Your task to perform on an android device: Go to eBay Image 0: 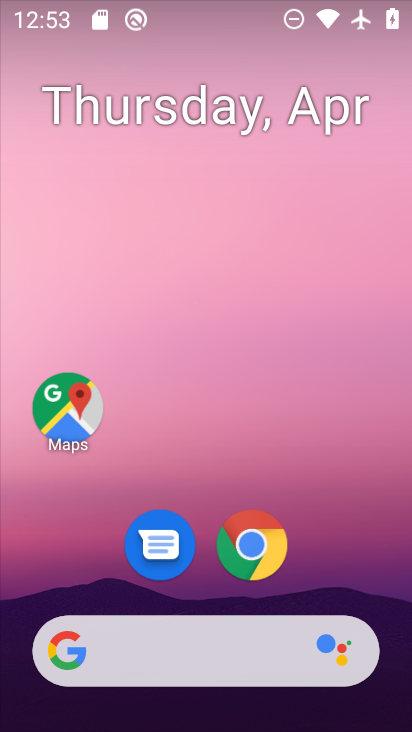
Step 0: click (264, 533)
Your task to perform on an android device: Go to eBay Image 1: 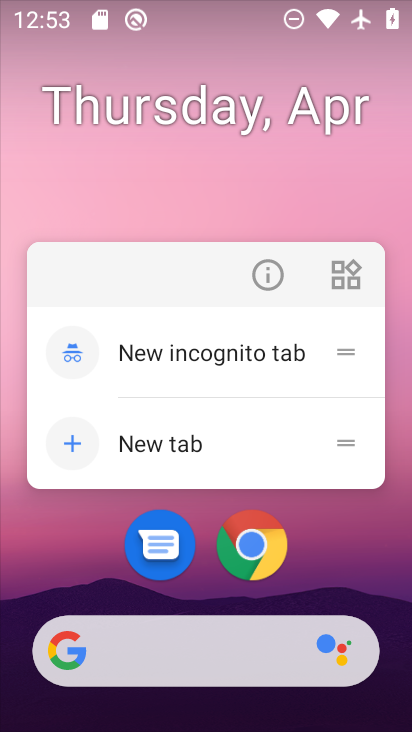
Step 1: click (252, 540)
Your task to perform on an android device: Go to eBay Image 2: 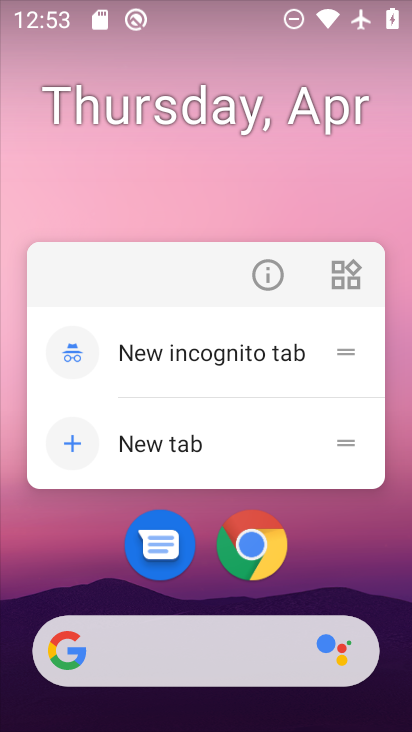
Step 2: click (254, 553)
Your task to perform on an android device: Go to eBay Image 3: 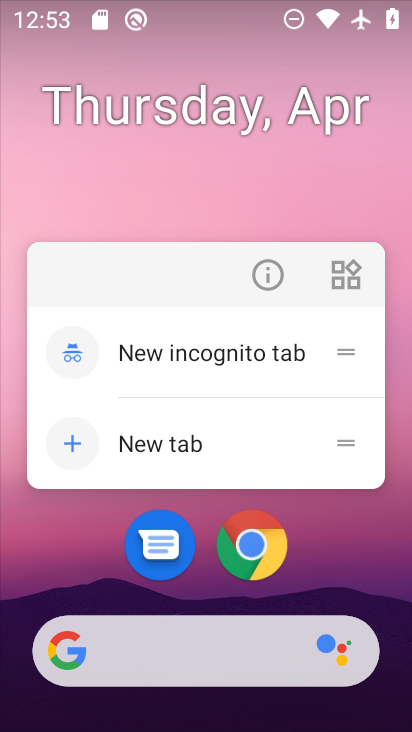
Step 3: drag from (332, 566) to (269, 0)
Your task to perform on an android device: Go to eBay Image 4: 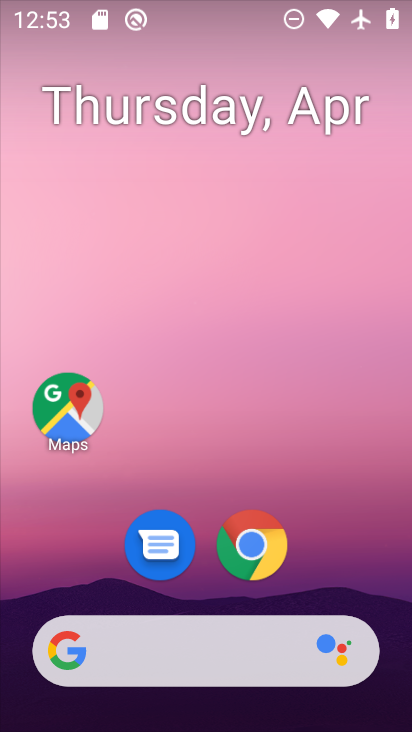
Step 4: drag from (359, 549) to (284, 176)
Your task to perform on an android device: Go to eBay Image 5: 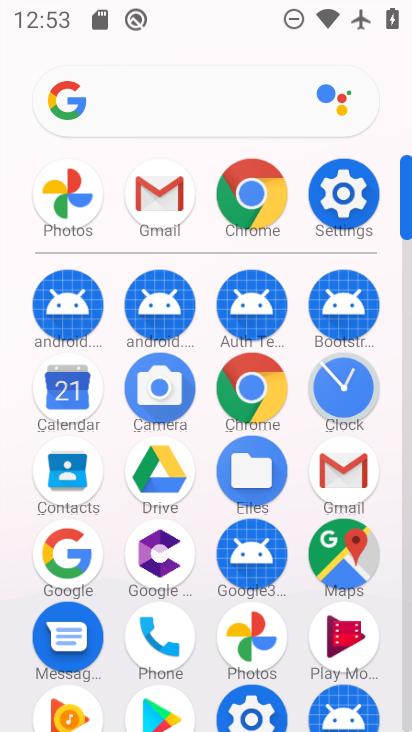
Step 5: click (250, 389)
Your task to perform on an android device: Go to eBay Image 6: 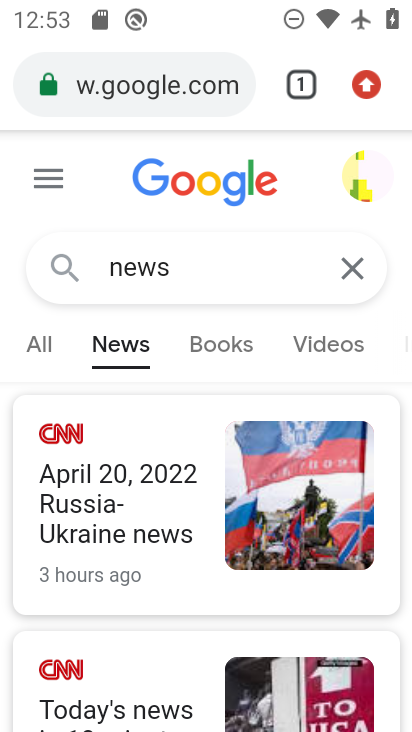
Step 6: click (171, 92)
Your task to perform on an android device: Go to eBay Image 7: 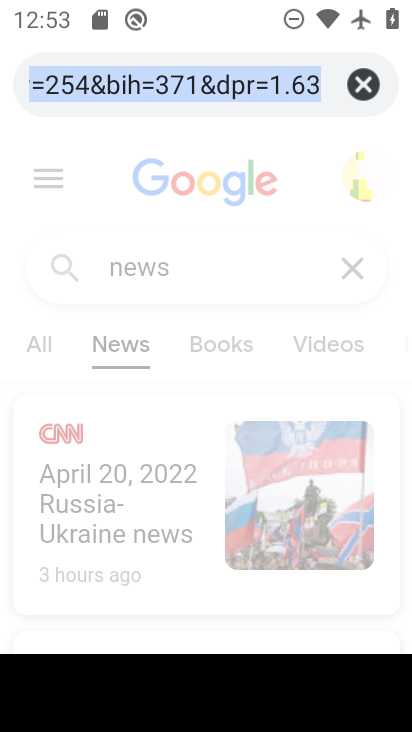
Step 7: type "ebay"
Your task to perform on an android device: Go to eBay Image 8: 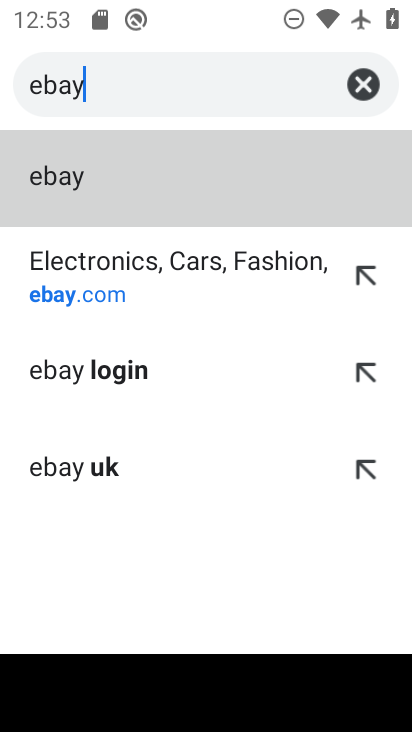
Step 8: click (61, 173)
Your task to perform on an android device: Go to eBay Image 9: 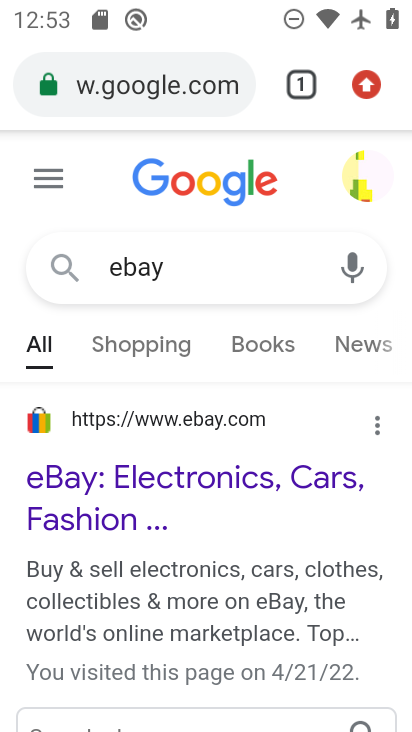
Step 9: click (111, 489)
Your task to perform on an android device: Go to eBay Image 10: 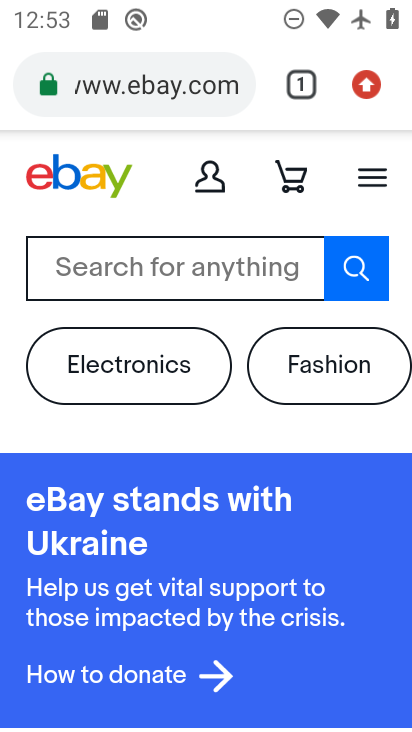
Step 10: task complete